Your task to perform on an android device: turn on the 24-hour format for clock Image 0: 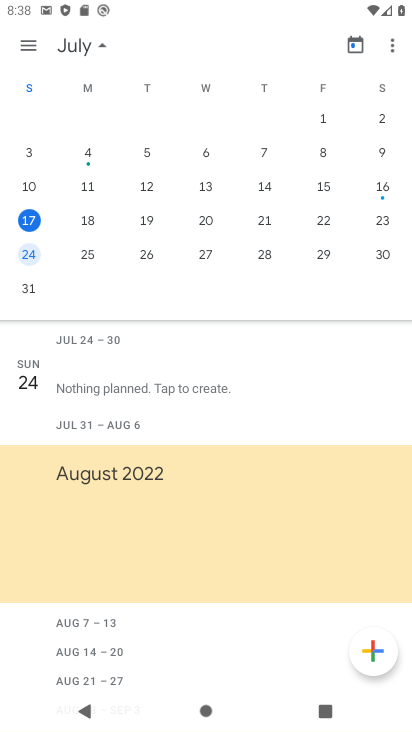
Step 0: press home button
Your task to perform on an android device: turn on the 24-hour format for clock Image 1: 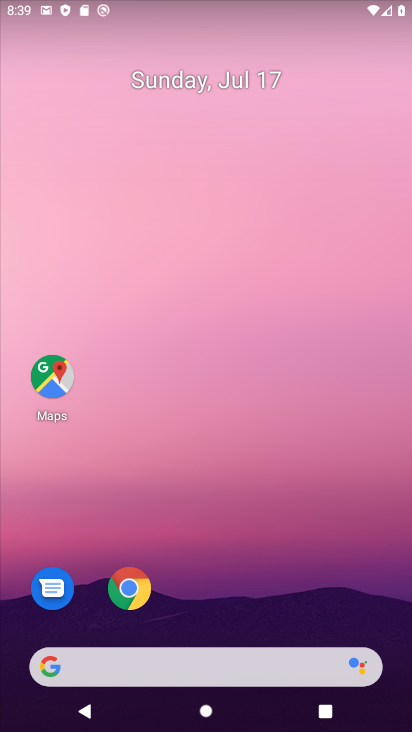
Step 1: drag from (254, 599) to (253, 20)
Your task to perform on an android device: turn on the 24-hour format for clock Image 2: 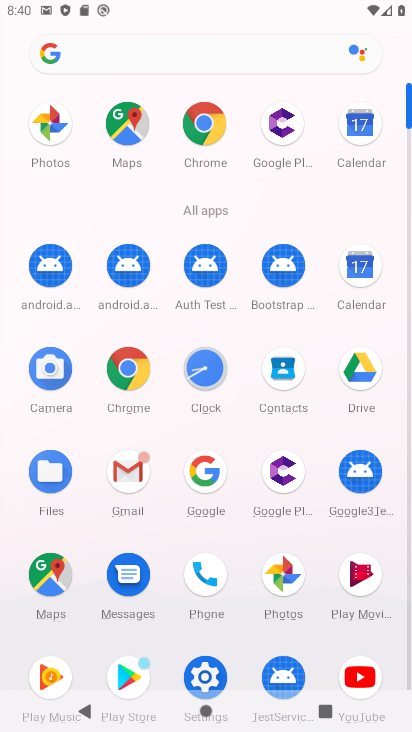
Step 2: click (200, 397)
Your task to perform on an android device: turn on the 24-hour format for clock Image 3: 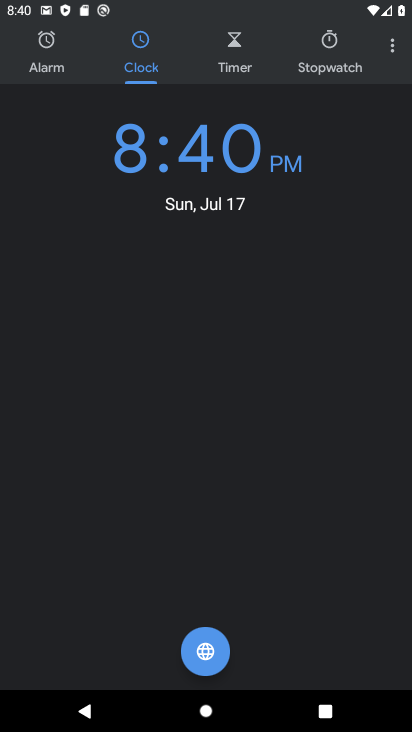
Step 3: click (385, 50)
Your task to perform on an android device: turn on the 24-hour format for clock Image 4: 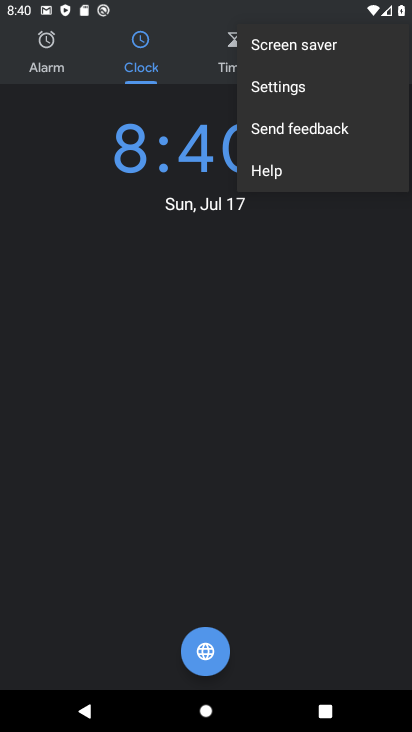
Step 4: click (275, 80)
Your task to perform on an android device: turn on the 24-hour format for clock Image 5: 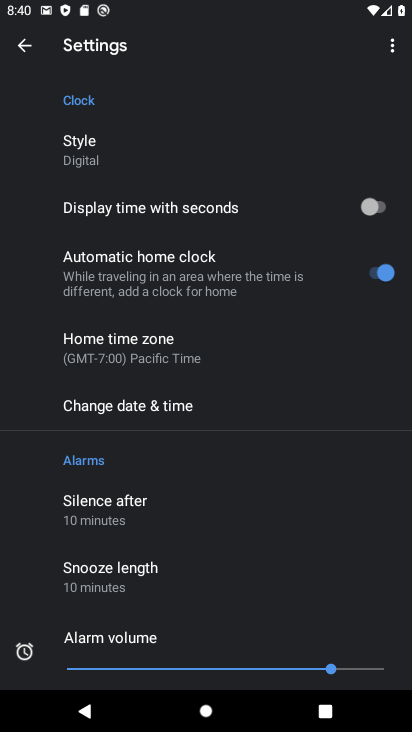
Step 5: click (162, 405)
Your task to perform on an android device: turn on the 24-hour format for clock Image 6: 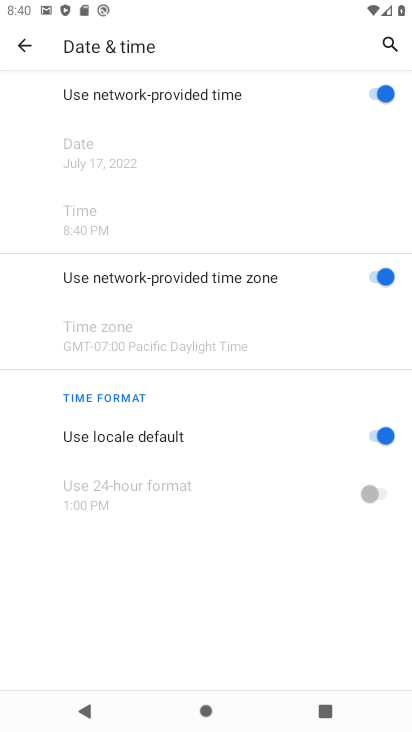
Step 6: click (181, 439)
Your task to perform on an android device: turn on the 24-hour format for clock Image 7: 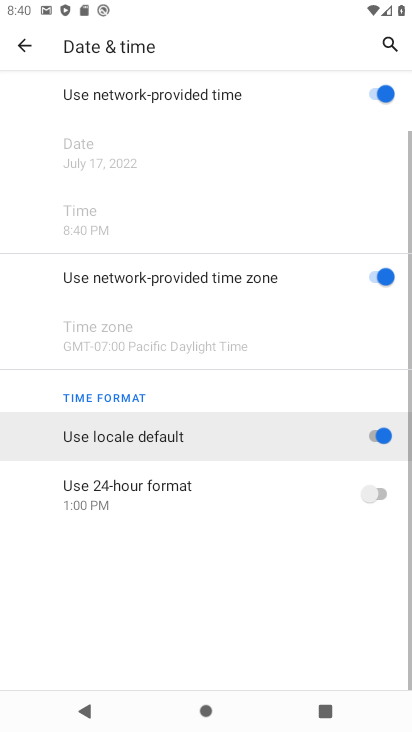
Step 7: click (179, 492)
Your task to perform on an android device: turn on the 24-hour format for clock Image 8: 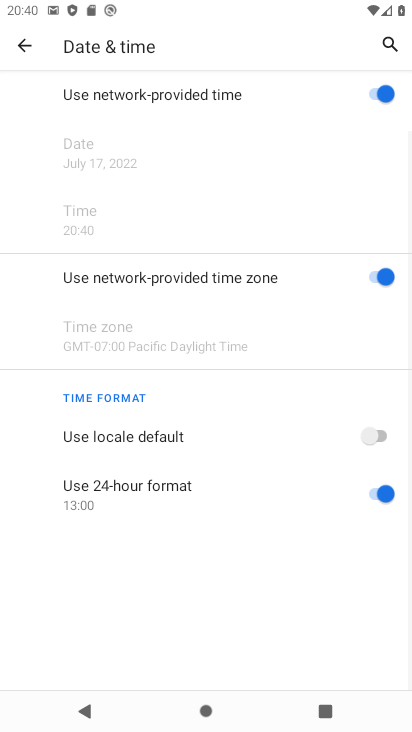
Step 8: task complete